Your task to perform on an android device: Turn on the flashlight Image 0: 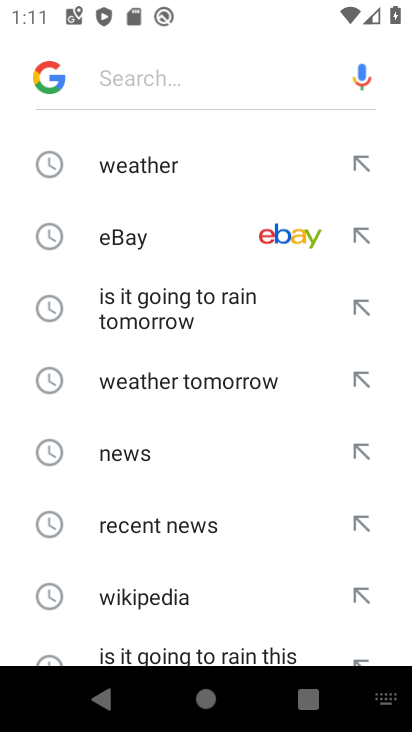
Step 0: press home button
Your task to perform on an android device: Turn on the flashlight Image 1: 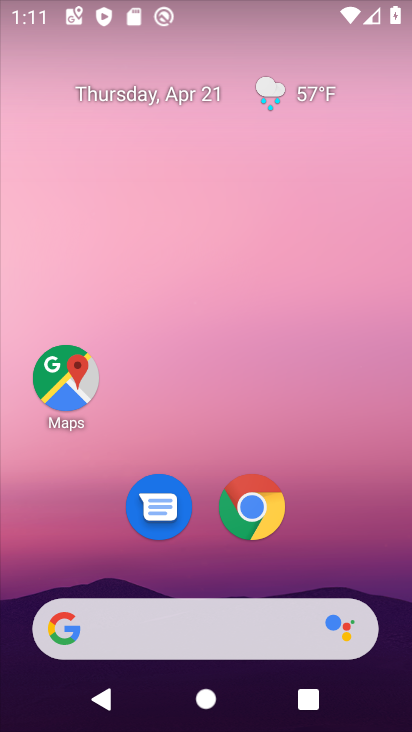
Step 1: drag from (178, 437) to (229, 51)
Your task to perform on an android device: Turn on the flashlight Image 2: 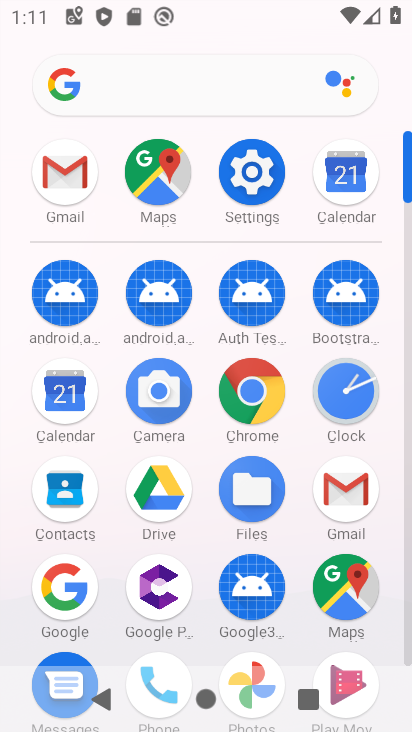
Step 2: click (254, 171)
Your task to perform on an android device: Turn on the flashlight Image 3: 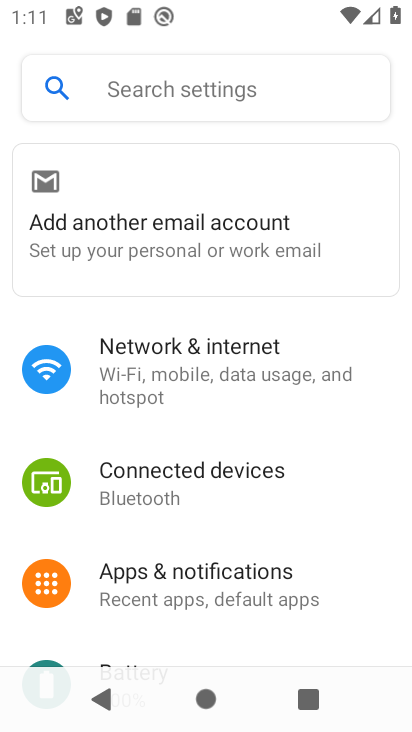
Step 3: drag from (217, 461) to (307, 353)
Your task to perform on an android device: Turn on the flashlight Image 4: 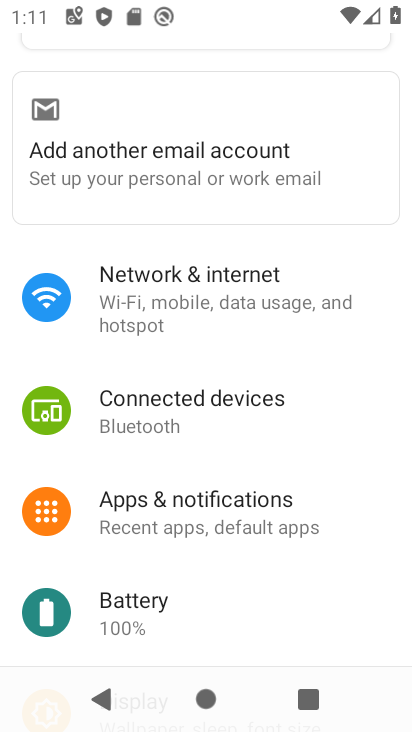
Step 4: drag from (212, 483) to (287, 394)
Your task to perform on an android device: Turn on the flashlight Image 5: 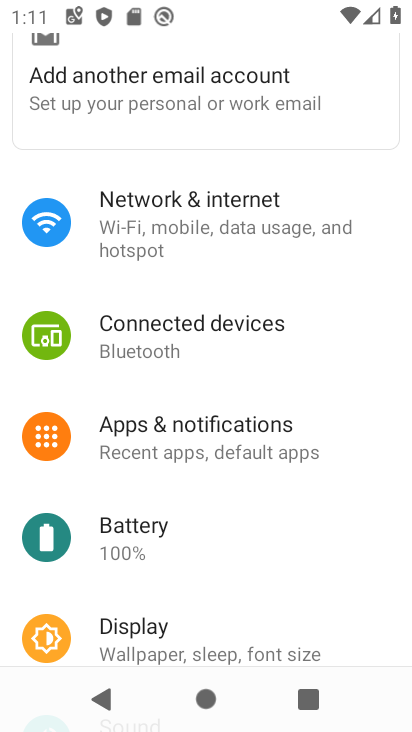
Step 5: drag from (178, 529) to (225, 441)
Your task to perform on an android device: Turn on the flashlight Image 6: 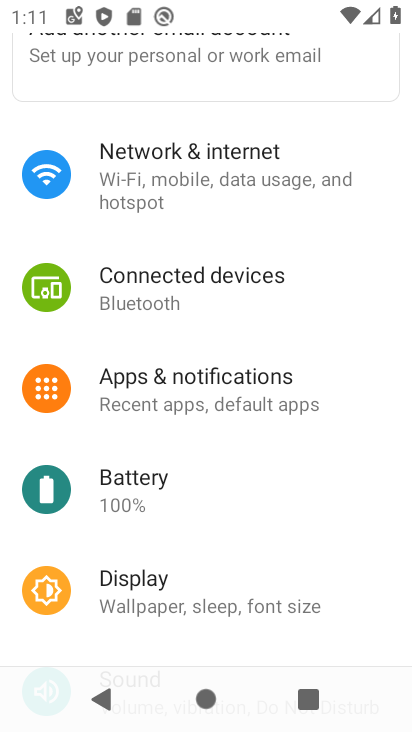
Step 6: drag from (212, 503) to (279, 394)
Your task to perform on an android device: Turn on the flashlight Image 7: 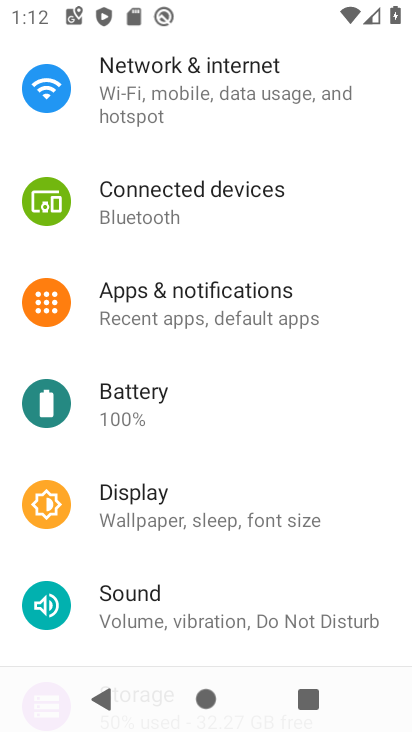
Step 7: drag from (229, 588) to (324, 454)
Your task to perform on an android device: Turn on the flashlight Image 8: 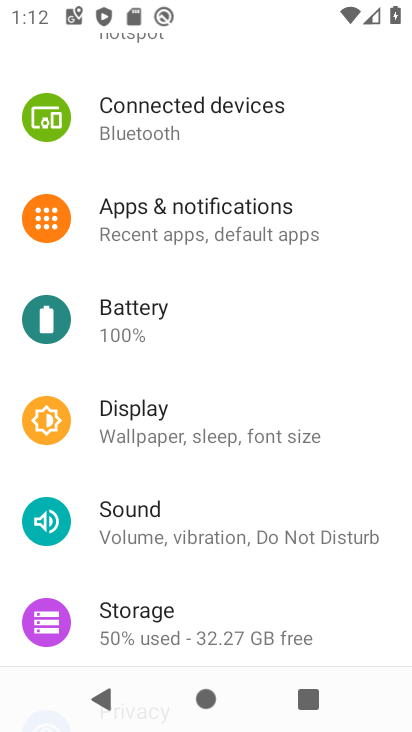
Step 8: drag from (200, 573) to (243, 496)
Your task to perform on an android device: Turn on the flashlight Image 9: 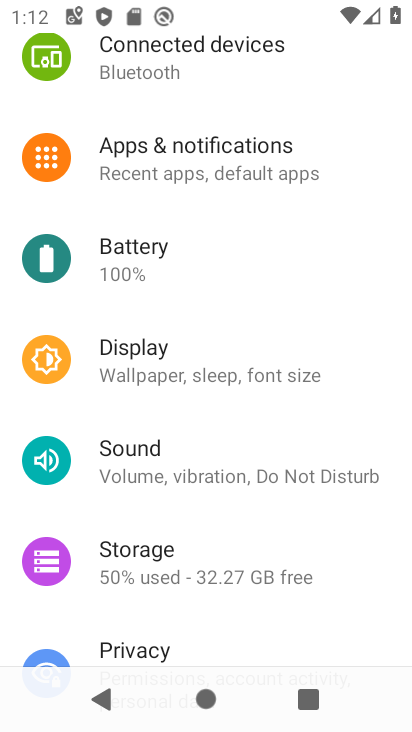
Step 9: drag from (214, 562) to (267, 430)
Your task to perform on an android device: Turn on the flashlight Image 10: 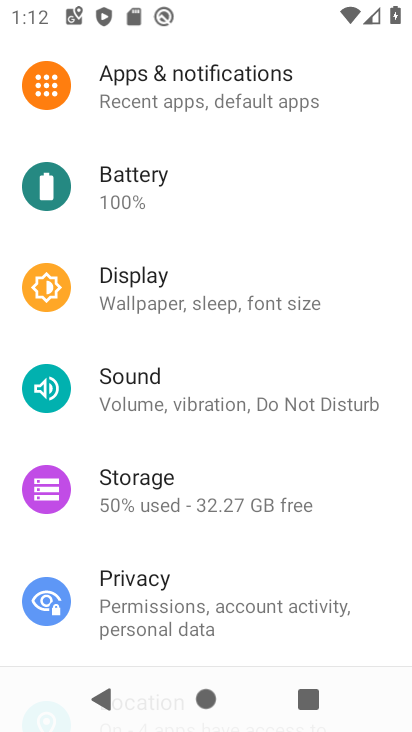
Step 10: drag from (213, 534) to (273, 440)
Your task to perform on an android device: Turn on the flashlight Image 11: 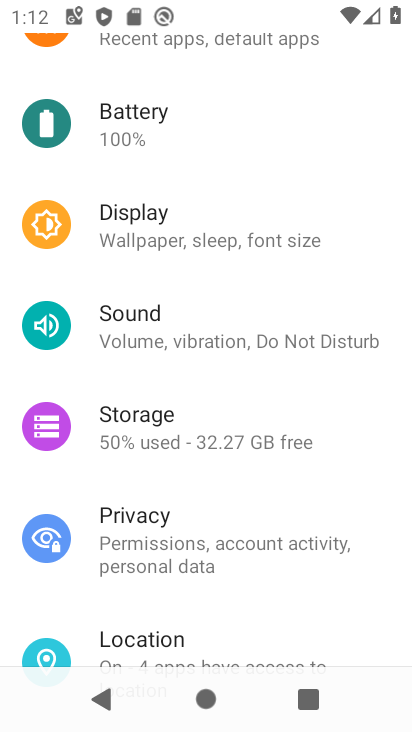
Step 11: drag from (222, 567) to (282, 474)
Your task to perform on an android device: Turn on the flashlight Image 12: 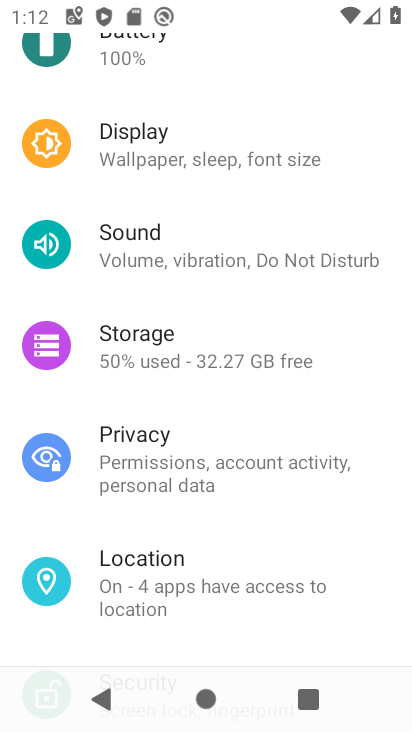
Step 12: drag from (227, 555) to (317, 440)
Your task to perform on an android device: Turn on the flashlight Image 13: 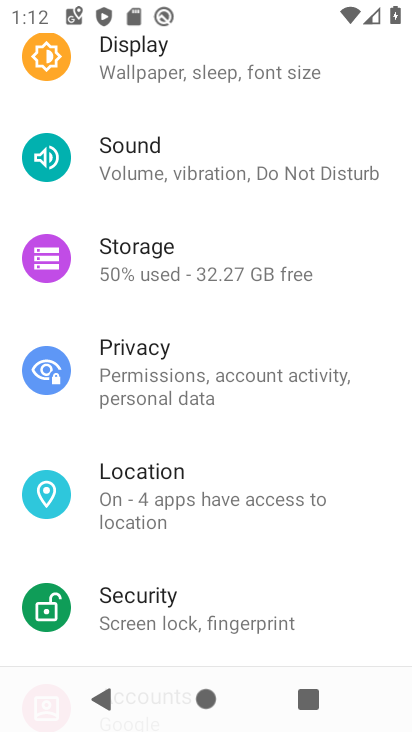
Step 13: drag from (221, 560) to (299, 438)
Your task to perform on an android device: Turn on the flashlight Image 14: 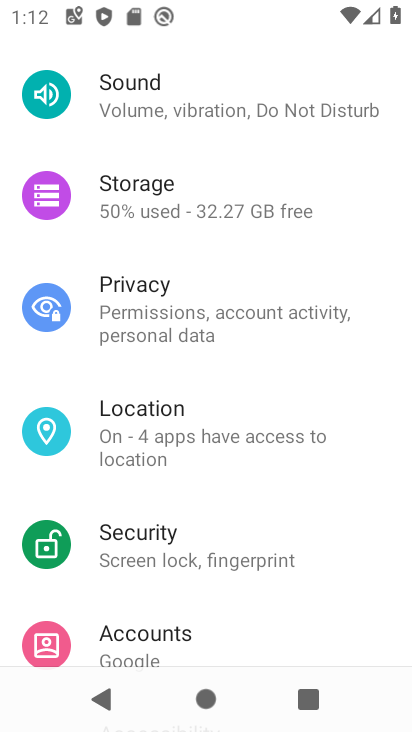
Step 14: drag from (202, 589) to (274, 496)
Your task to perform on an android device: Turn on the flashlight Image 15: 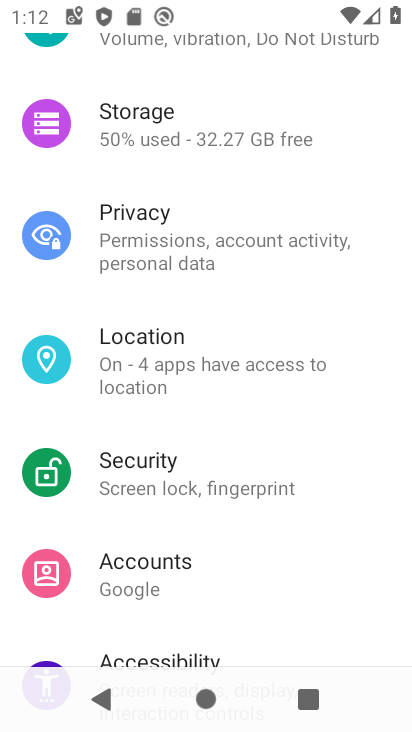
Step 15: drag from (212, 585) to (311, 437)
Your task to perform on an android device: Turn on the flashlight Image 16: 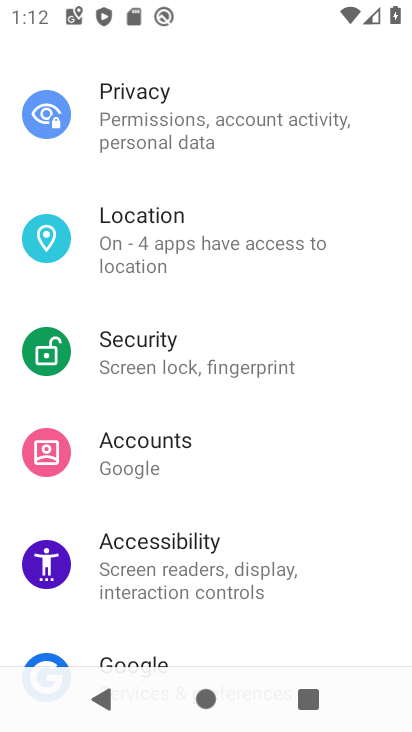
Step 16: drag from (236, 512) to (297, 387)
Your task to perform on an android device: Turn on the flashlight Image 17: 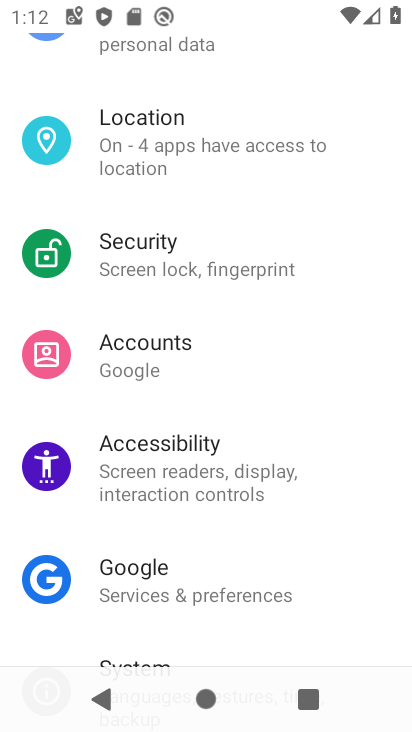
Step 17: click (147, 444)
Your task to perform on an android device: Turn on the flashlight Image 18: 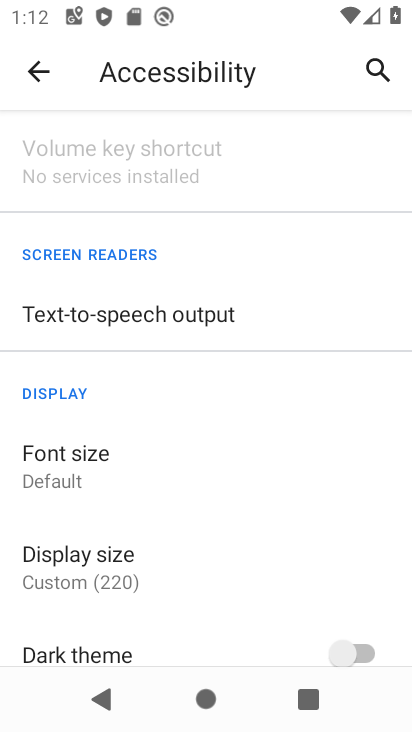
Step 18: drag from (203, 488) to (257, 377)
Your task to perform on an android device: Turn on the flashlight Image 19: 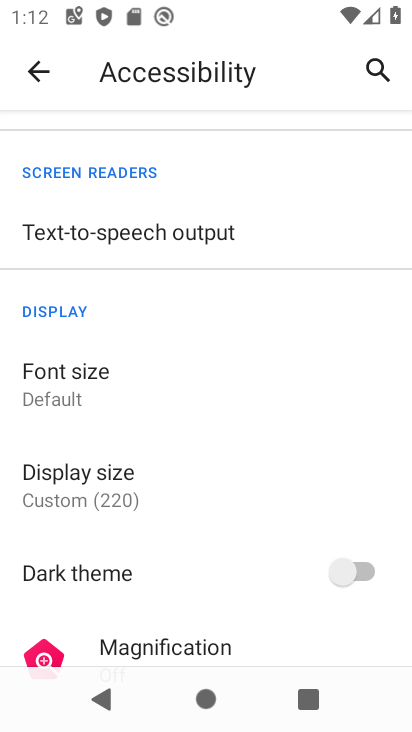
Step 19: drag from (183, 526) to (231, 431)
Your task to perform on an android device: Turn on the flashlight Image 20: 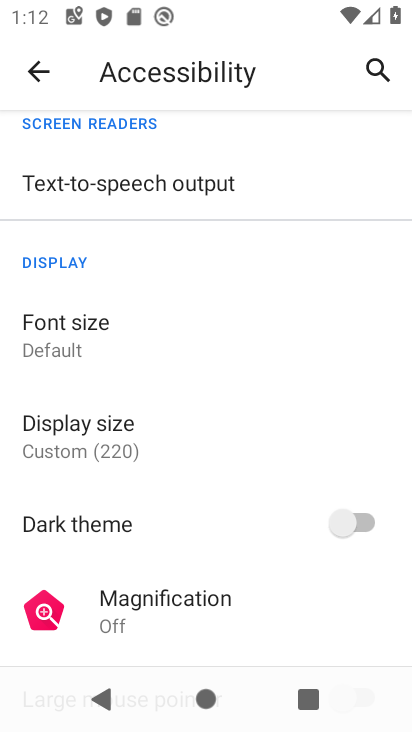
Step 20: drag from (206, 537) to (264, 411)
Your task to perform on an android device: Turn on the flashlight Image 21: 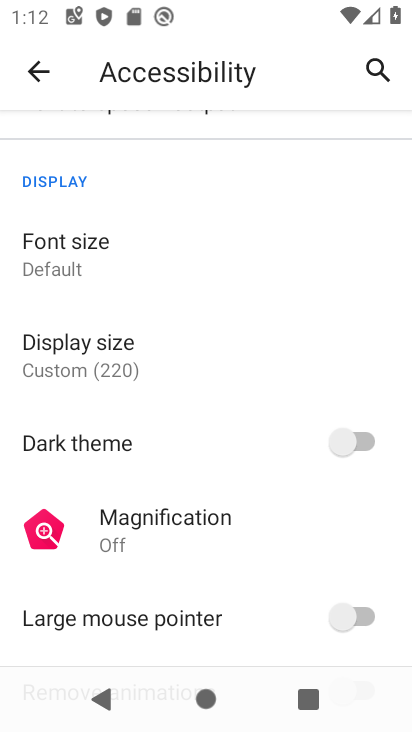
Step 21: drag from (194, 559) to (225, 400)
Your task to perform on an android device: Turn on the flashlight Image 22: 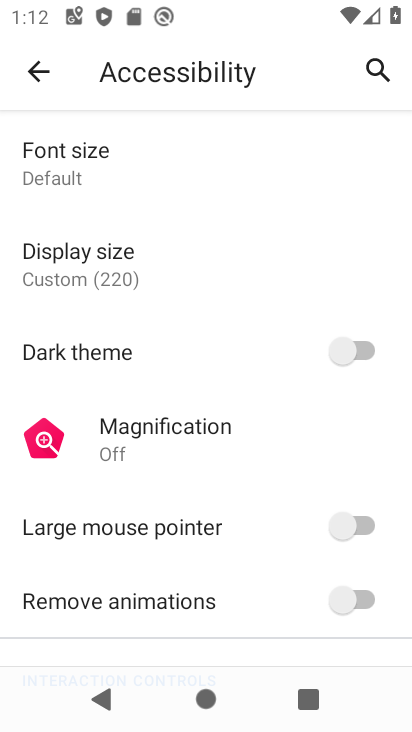
Step 22: drag from (170, 542) to (242, 383)
Your task to perform on an android device: Turn on the flashlight Image 23: 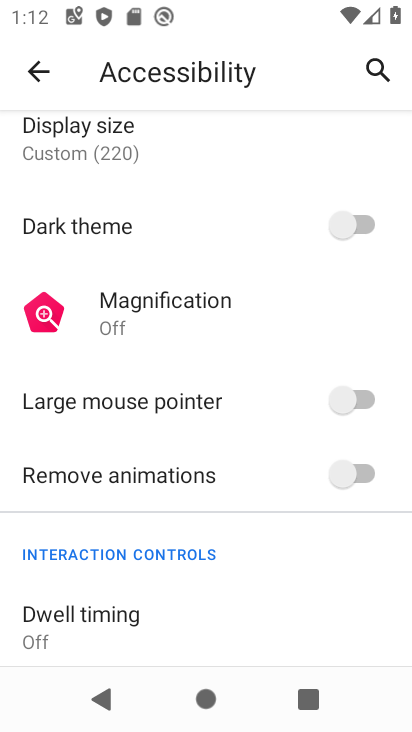
Step 23: drag from (214, 609) to (261, 359)
Your task to perform on an android device: Turn on the flashlight Image 24: 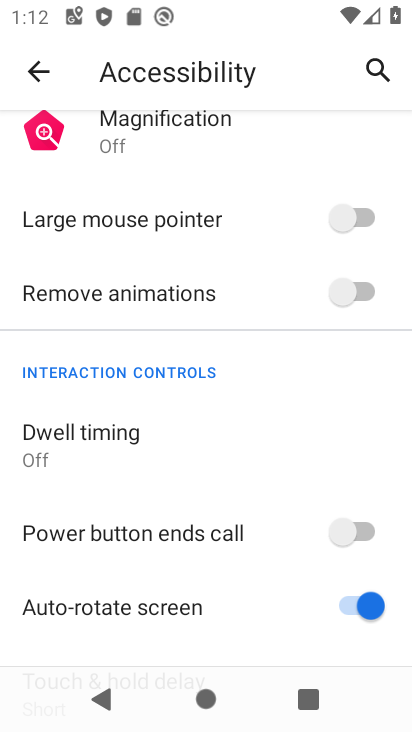
Step 24: drag from (258, 645) to (268, 432)
Your task to perform on an android device: Turn on the flashlight Image 25: 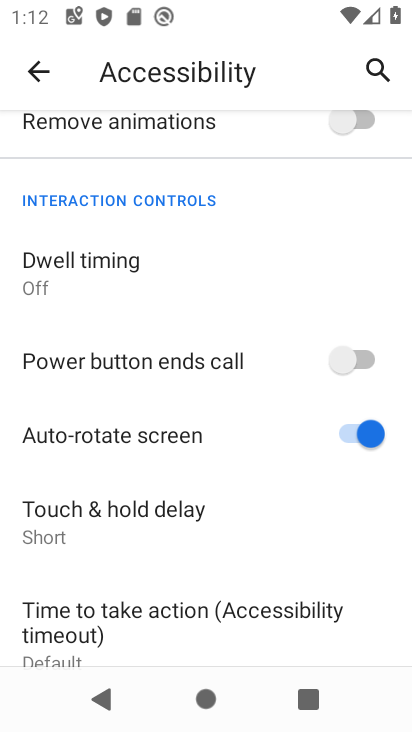
Step 25: drag from (149, 552) to (169, 318)
Your task to perform on an android device: Turn on the flashlight Image 26: 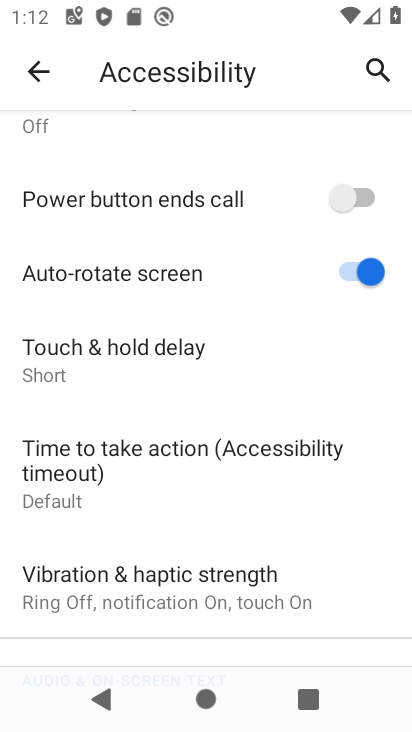
Step 26: drag from (125, 536) to (186, 348)
Your task to perform on an android device: Turn on the flashlight Image 27: 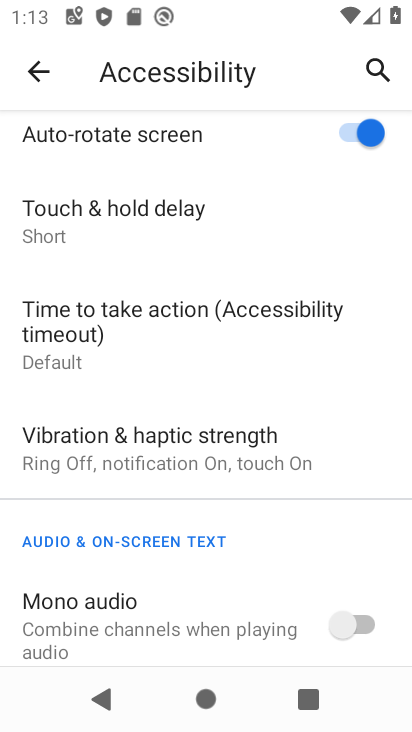
Step 27: drag from (186, 596) to (267, 368)
Your task to perform on an android device: Turn on the flashlight Image 28: 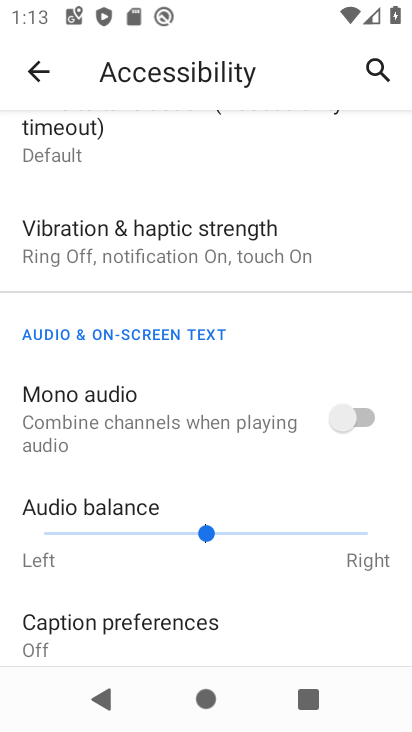
Step 28: press back button
Your task to perform on an android device: Turn on the flashlight Image 29: 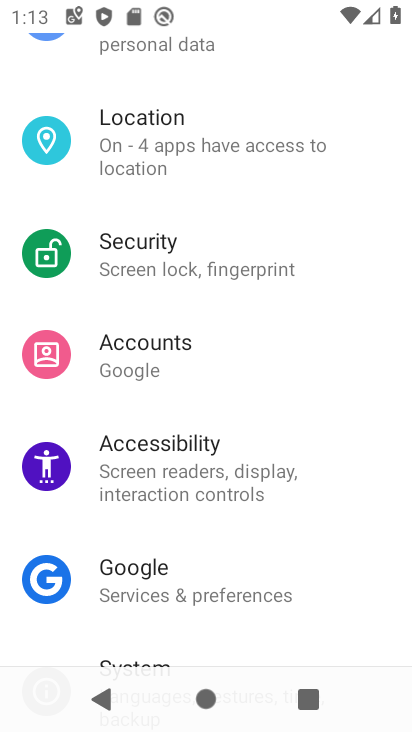
Step 29: drag from (265, 300) to (274, 437)
Your task to perform on an android device: Turn on the flashlight Image 30: 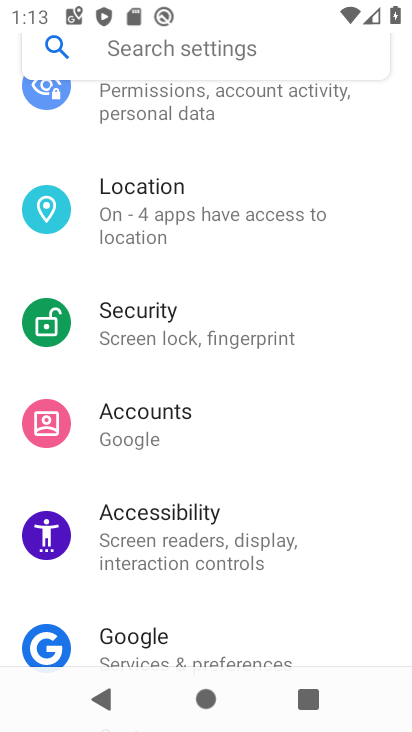
Step 30: drag from (245, 204) to (257, 409)
Your task to perform on an android device: Turn on the flashlight Image 31: 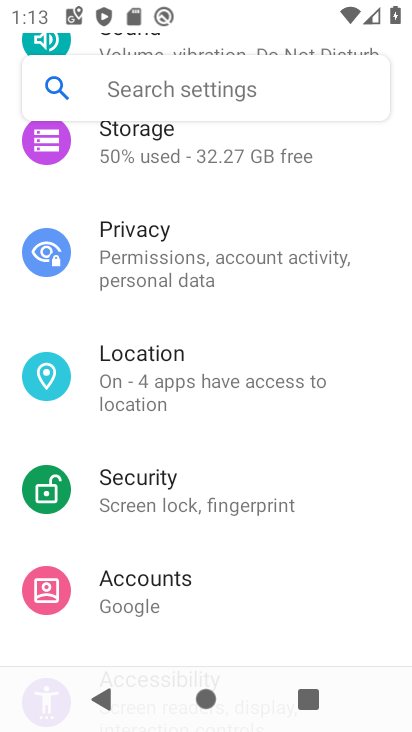
Step 31: drag from (283, 187) to (257, 376)
Your task to perform on an android device: Turn on the flashlight Image 32: 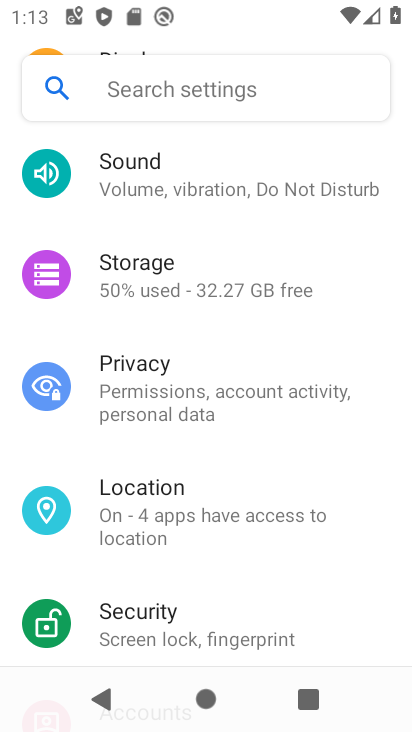
Step 32: drag from (257, 258) to (249, 402)
Your task to perform on an android device: Turn on the flashlight Image 33: 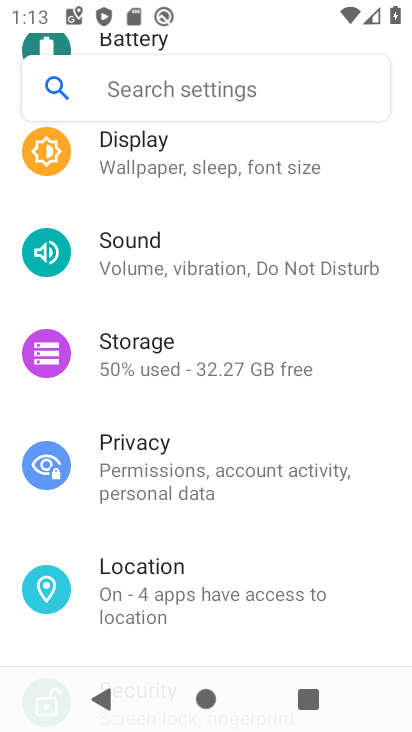
Step 33: drag from (255, 215) to (250, 410)
Your task to perform on an android device: Turn on the flashlight Image 34: 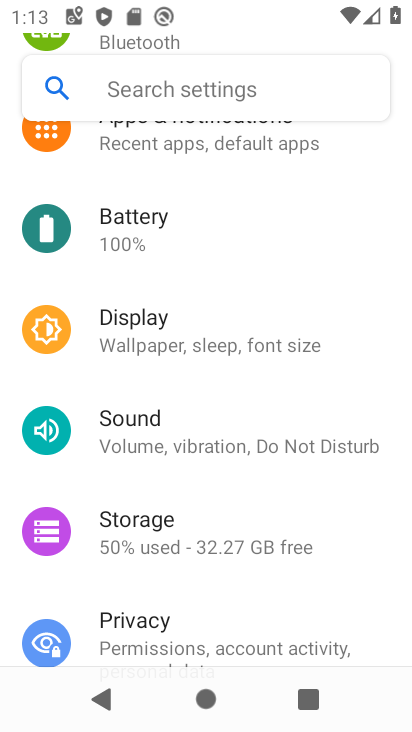
Step 34: click (244, 345)
Your task to perform on an android device: Turn on the flashlight Image 35: 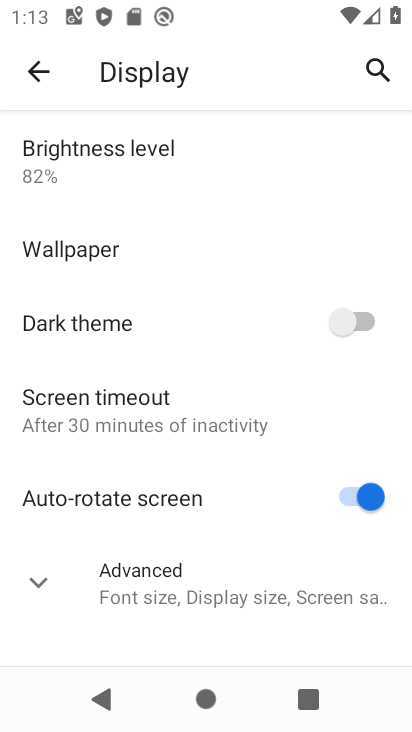
Step 35: click (194, 593)
Your task to perform on an android device: Turn on the flashlight Image 36: 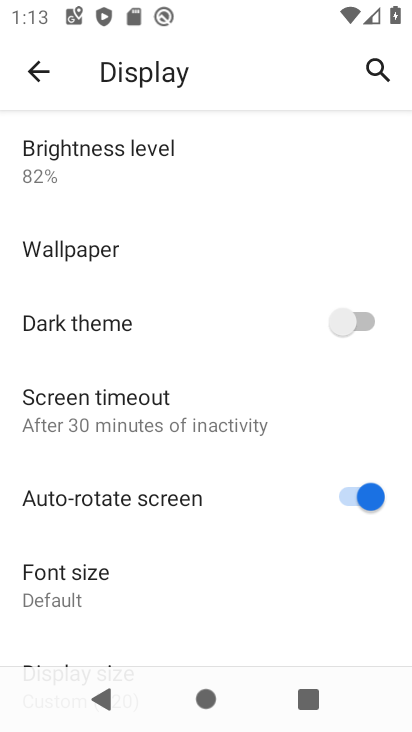
Step 36: task complete